Your task to perform on an android device: Go to settings Image 0: 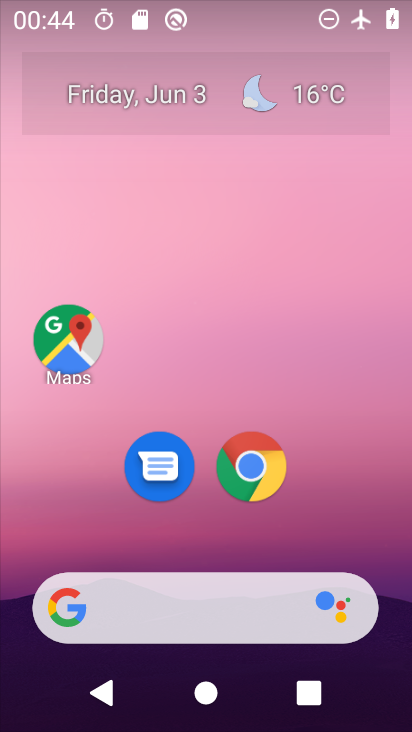
Step 0: drag from (178, 543) to (185, 151)
Your task to perform on an android device: Go to settings Image 1: 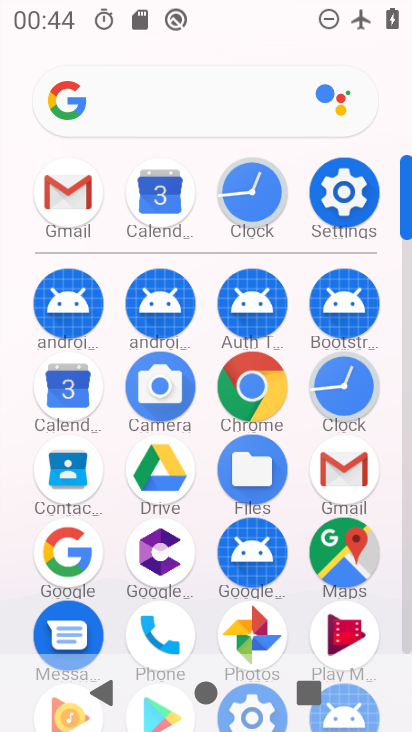
Step 1: click (351, 199)
Your task to perform on an android device: Go to settings Image 2: 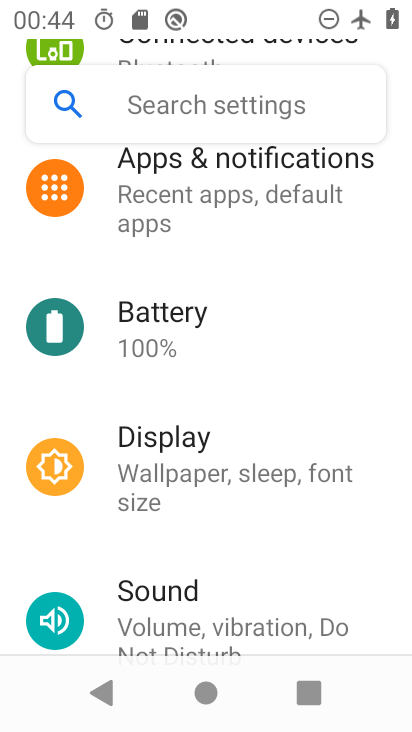
Step 2: task complete